Your task to perform on an android device: What's the weather today? Image 0: 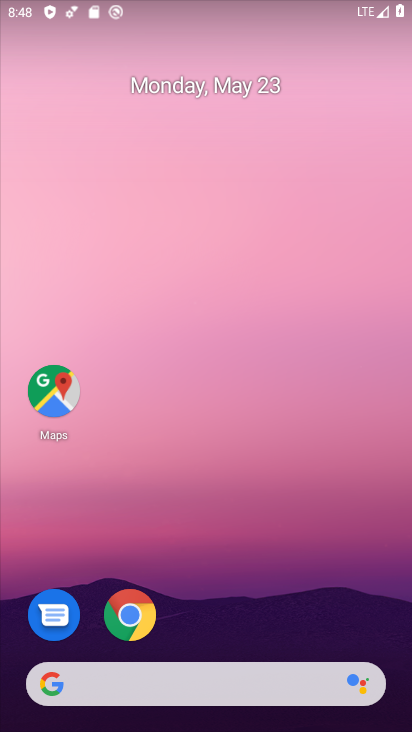
Step 0: drag from (227, 612) to (266, 99)
Your task to perform on an android device: What's the weather today? Image 1: 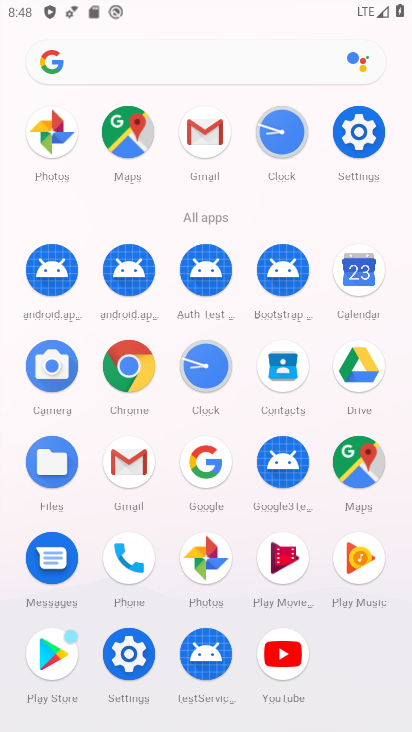
Step 1: click (209, 457)
Your task to perform on an android device: What's the weather today? Image 2: 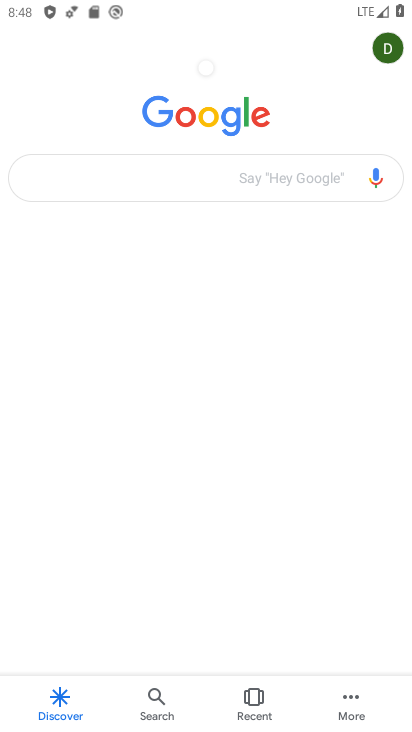
Step 2: click (166, 179)
Your task to perform on an android device: What's the weather today? Image 3: 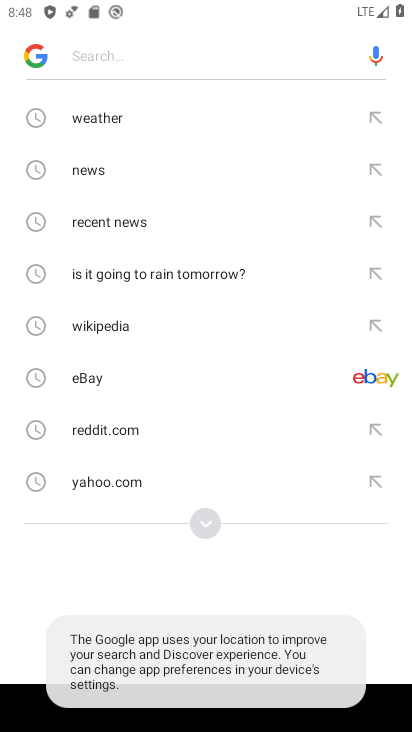
Step 3: click (93, 117)
Your task to perform on an android device: What's the weather today? Image 4: 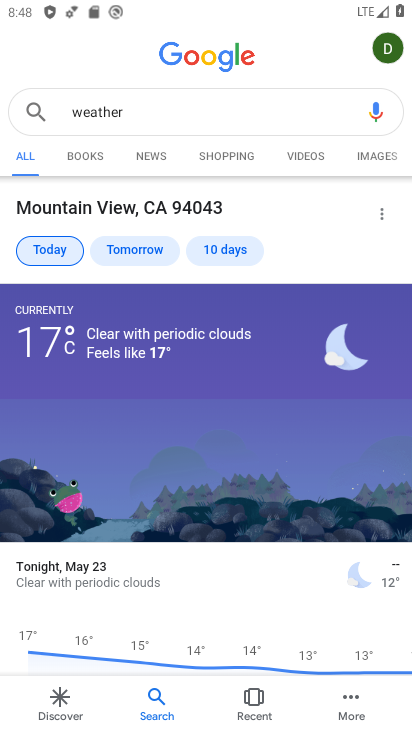
Step 4: task complete